Your task to perform on an android device: Go to settings Image 0: 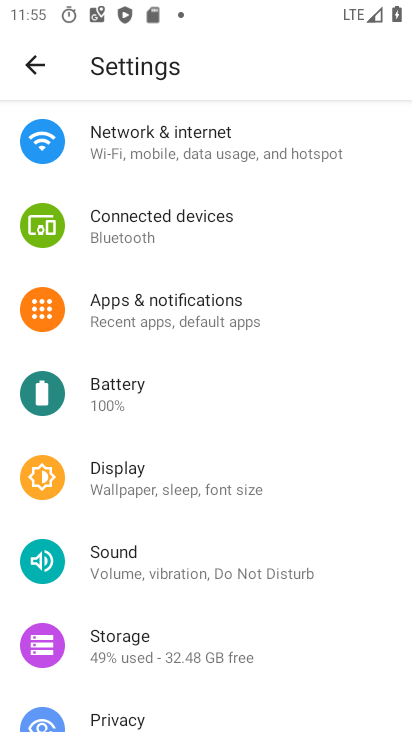
Step 0: drag from (168, 628) to (213, 118)
Your task to perform on an android device: Go to settings Image 1: 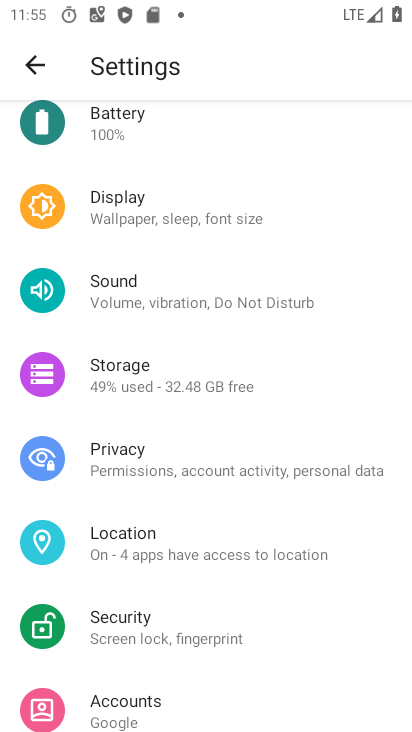
Step 1: task complete